Your task to perform on an android device: What is the news today? Image 0: 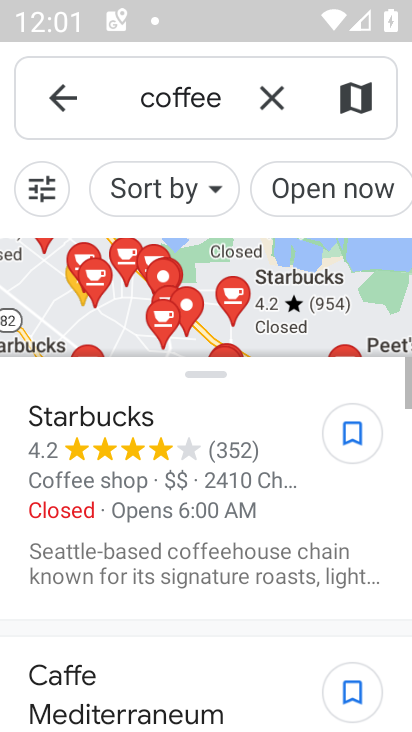
Step 0: press home button
Your task to perform on an android device: What is the news today? Image 1: 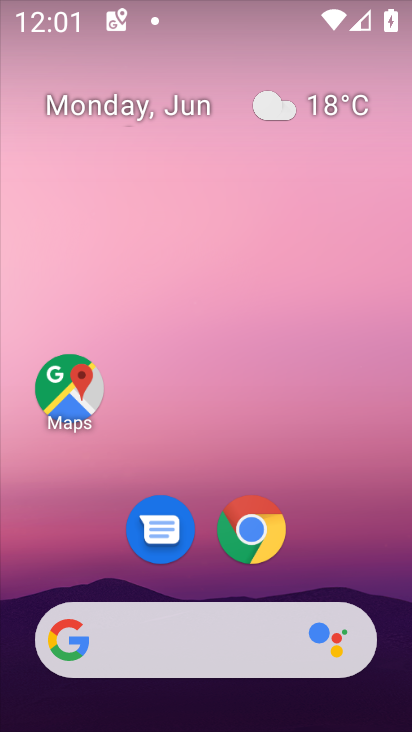
Step 1: drag from (318, 534) to (261, 10)
Your task to perform on an android device: What is the news today? Image 2: 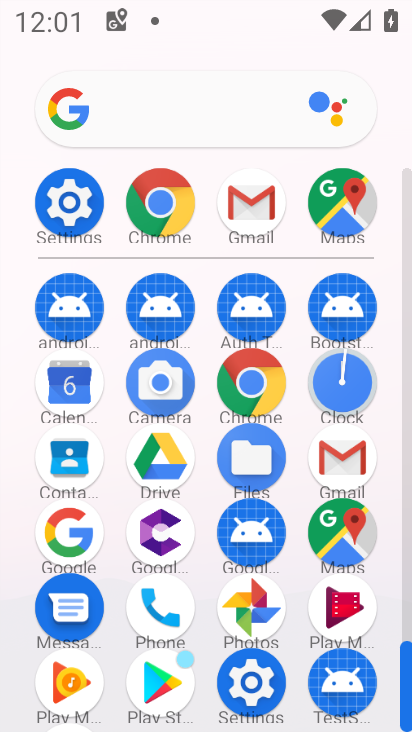
Step 2: click (177, 195)
Your task to perform on an android device: What is the news today? Image 3: 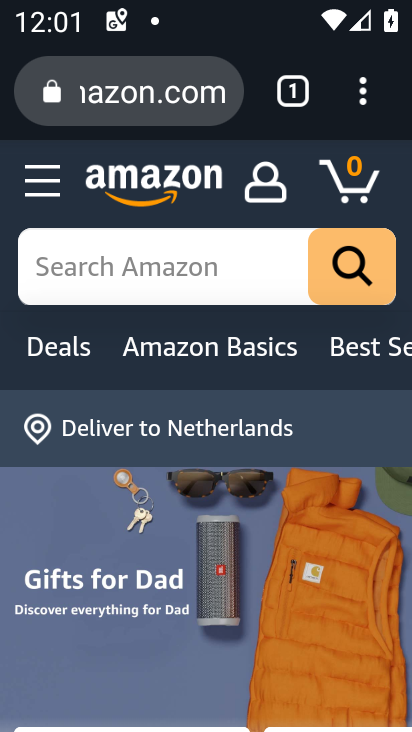
Step 3: drag from (361, 97) to (141, 187)
Your task to perform on an android device: What is the news today? Image 4: 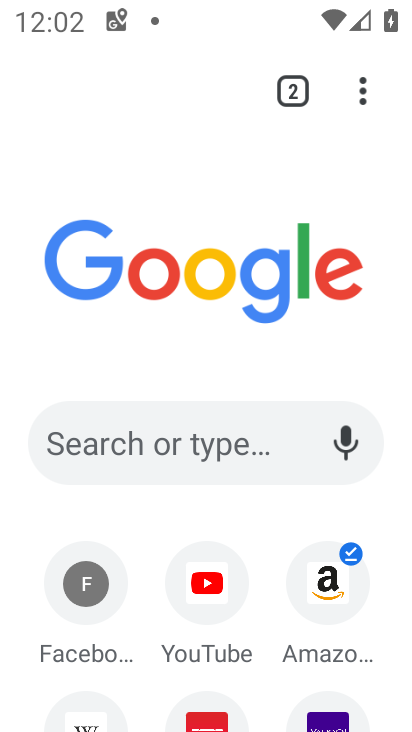
Step 4: drag from (280, 445) to (225, 99)
Your task to perform on an android device: What is the news today? Image 5: 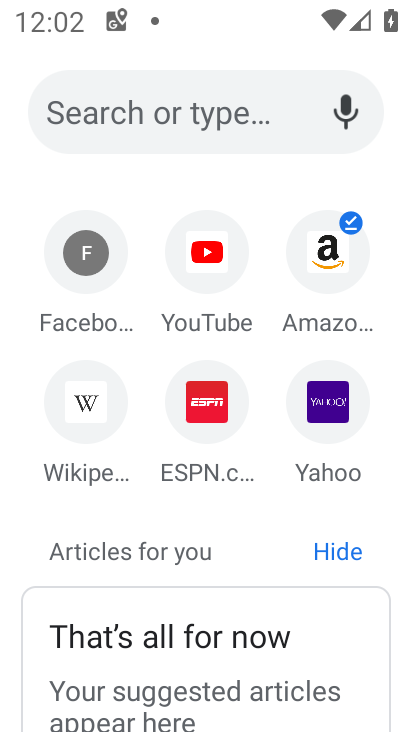
Step 5: drag from (306, 631) to (248, 173)
Your task to perform on an android device: What is the news today? Image 6: 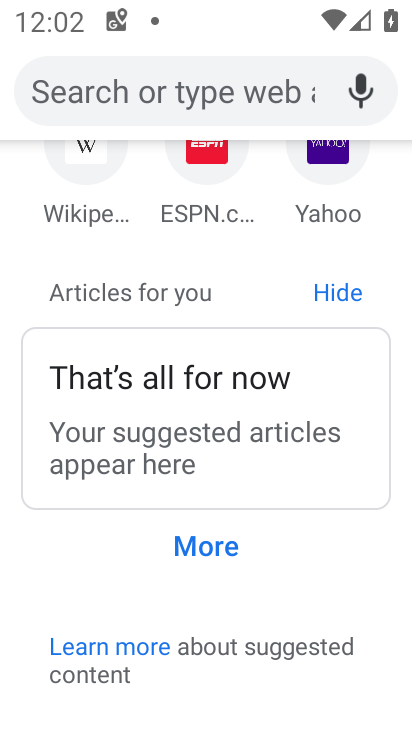
Step 6: click (234, 540)
Your task to perform on an android device: What is the news today? Image 7: 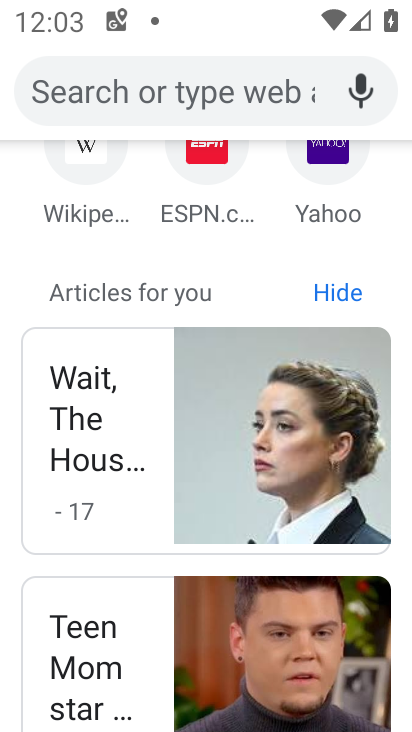
Step 7: task complete